Your task to perform on an android device: Go to wifi settings Image 0: 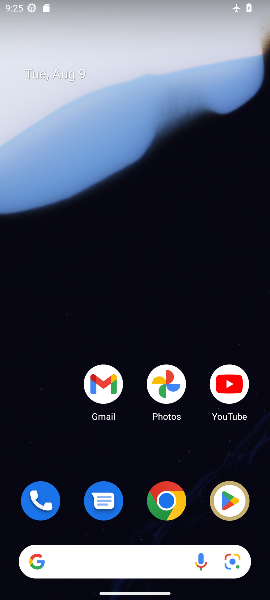
Step 0: drag from (129, 26) to (138, 51)
Your task to perform on an android device: Go to wifi settings Image 1: 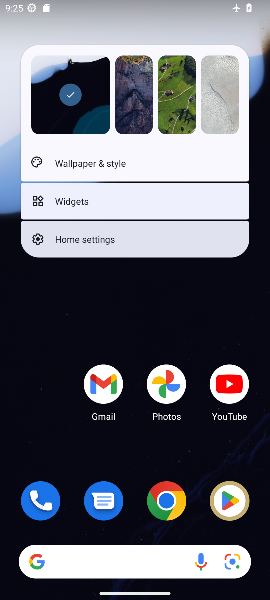
Step 1: press home button
Your task to perform on an android device: Go to wifi settings Image 2: 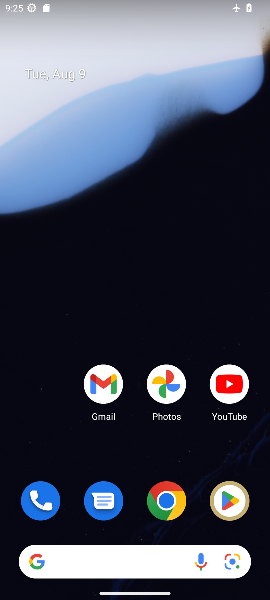
Step 2: drag from (135, 443) to (151, 76)
Your task to perform on an android device: Go to wifi settings Image 3: 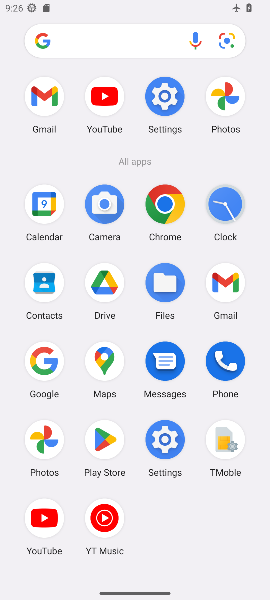
Step 3: click (169, 98)
Your task to perform on an android device: Go to wifi settings Image 4: 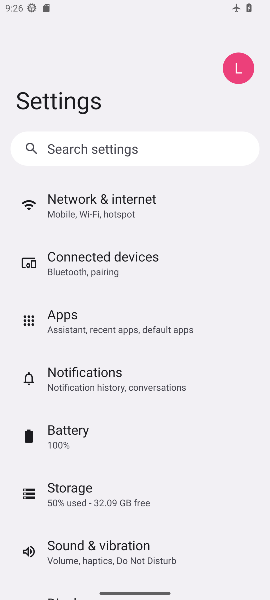
Step 4: click (80, 196)
Your task to perform on an android device: Go to wifi settings Image 5: 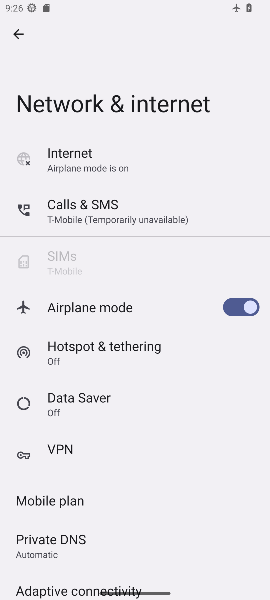
Step 5: task complete